Your task to perform on an android device: find snoozed emails in the gmail app Image 0: 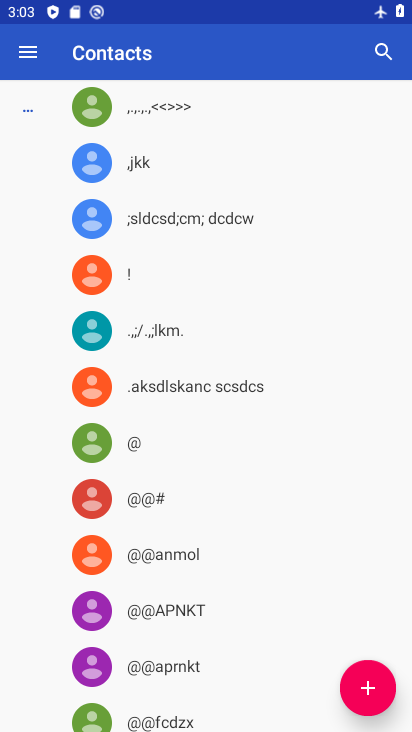
Step 0: press home button
Your task to perform on an android device: find snoozed emails in the gmail app Image 1: 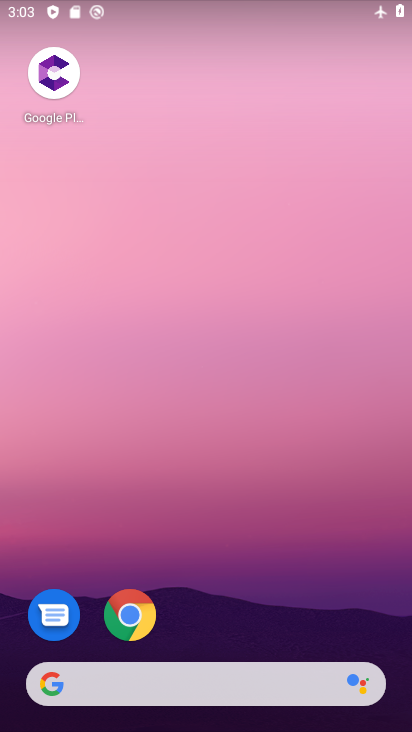
Step 1: drag from (254, 596) to (268, 275)
Your task to perform on an android device: find snoozed emails in the gmail app Image 2: 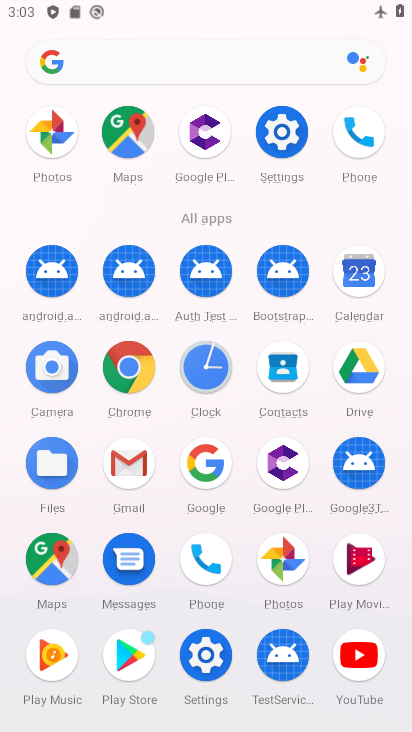
Step 2: click (142, 457)
Your task to perform on an android device: find snoozed emails in the gmail app Image 3: 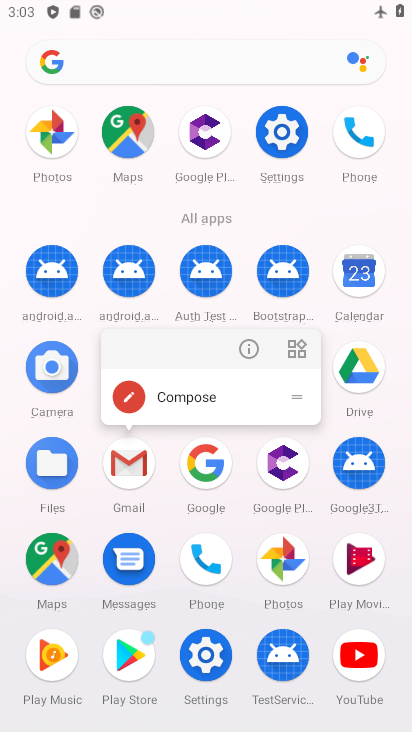
Step 3: click (123, 474)
Your task to perform on an android device: find snoozed emails in the gmail app Image 4: 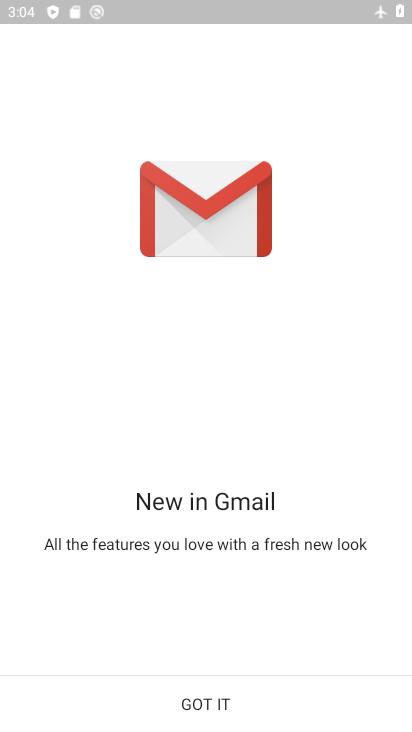
Step 4: click (247, 706)
Your task to perform on an android device: find snoozed emails in the gmail app Image 5: 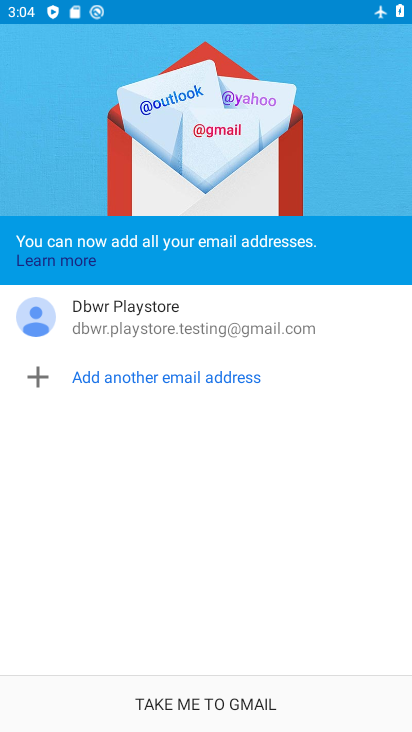
Step 5: click (250, 705)
Your task to perform on an android device: find snoozed emails in the gmail app Image 6: 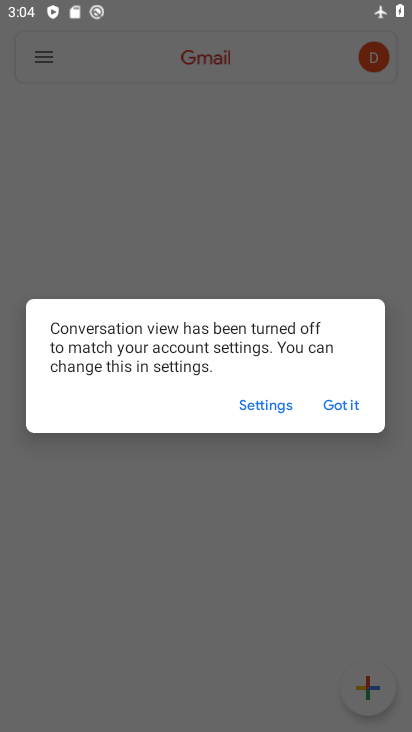
Step 6: click (356, 391)
Your task to perform on an android device: find snoozed emails in the gmail app Image 7: 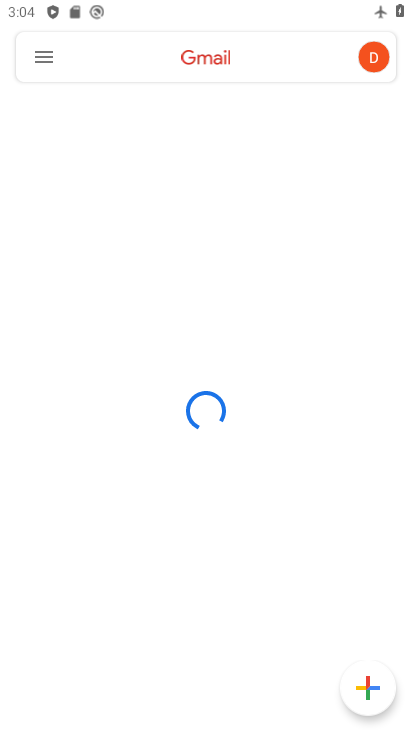
Step 7: click (33, 45)
Your task to perform on an android device: find snoozed emails in the gmail app Image 8: 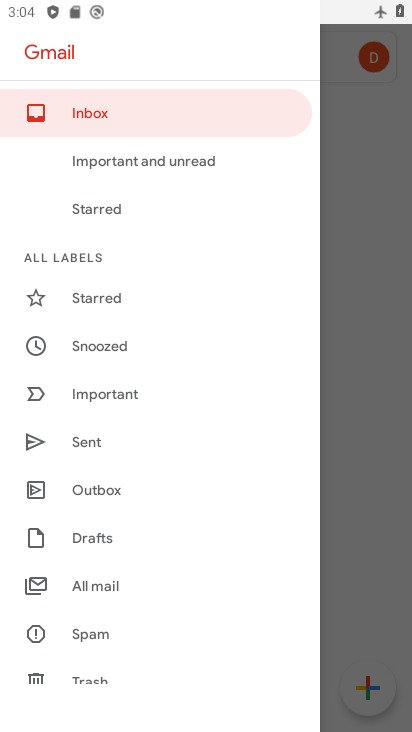
Step 8: click (119, 354)
Your task to perform on an android device: find snoozed emails in the gmail app Image 9: 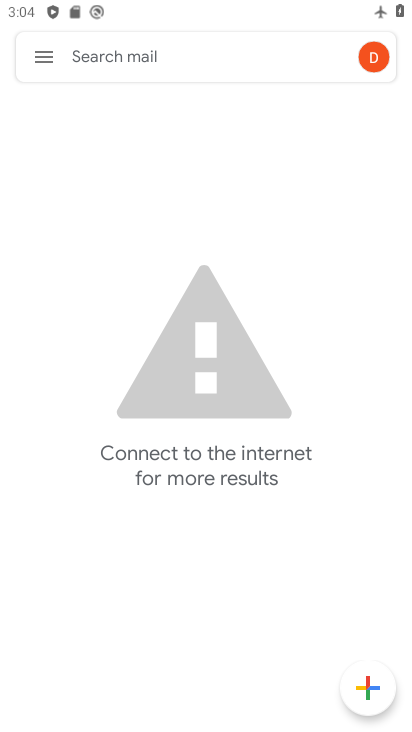
Step 9: task complete